Your task to perform on an android device: check android version Image 0: 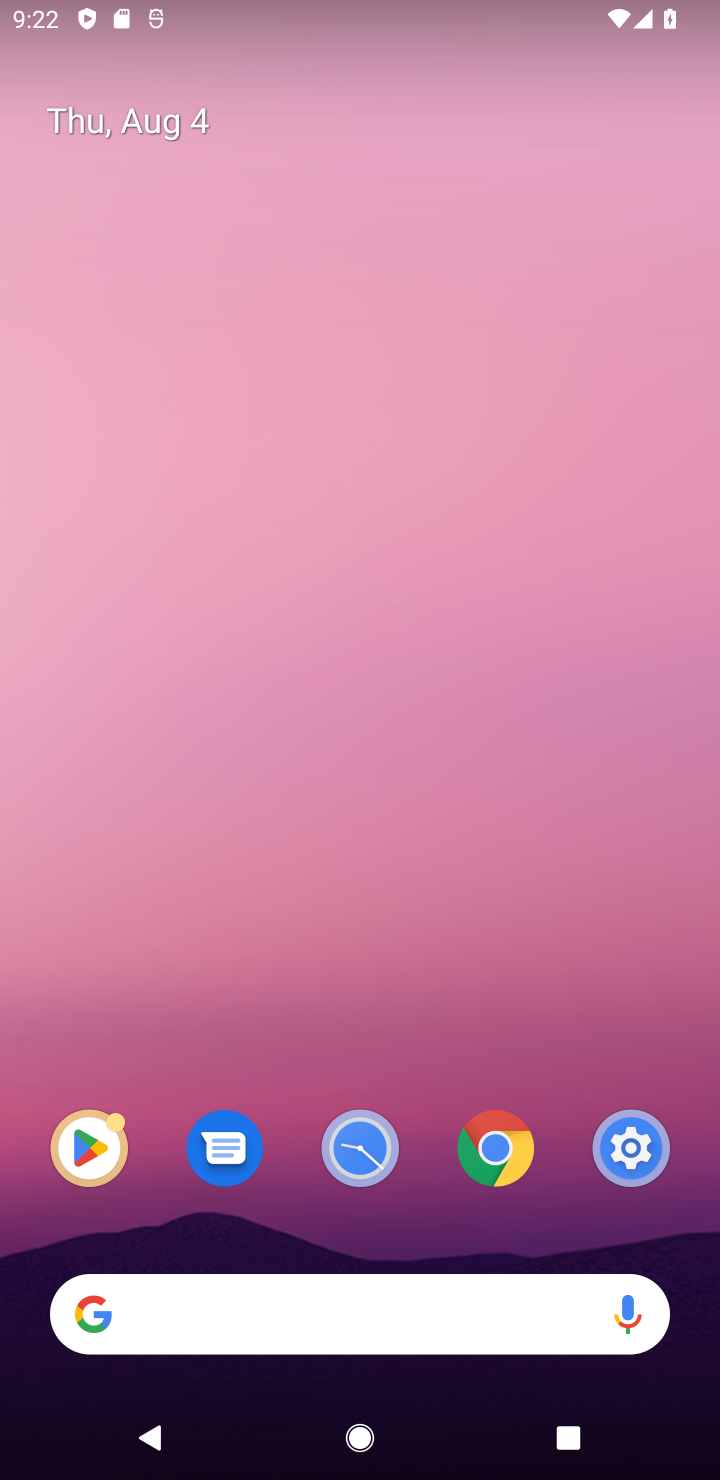
Step 0: drag from (276, 1030) to (355, 0)
Your task to perform on an android device: check android version Image 1: 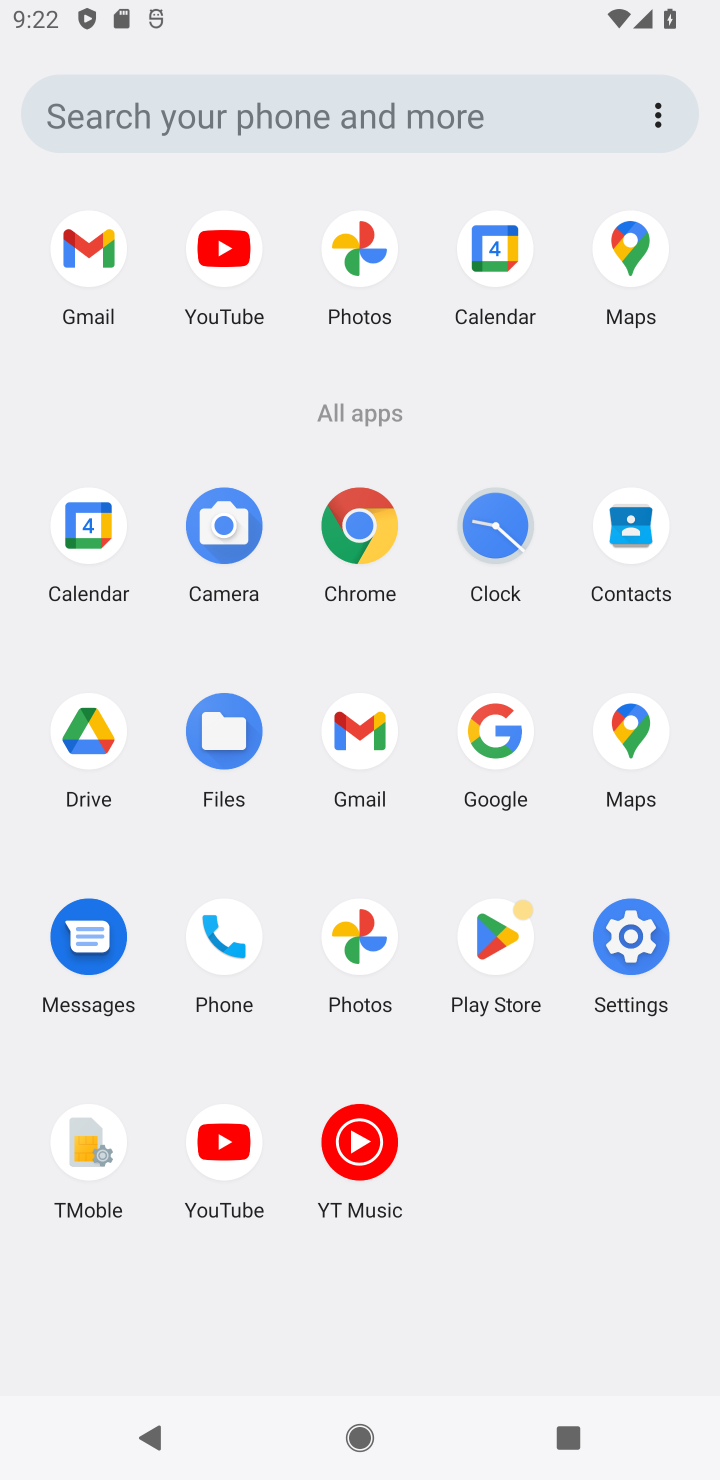
Step 1: press home button
Your task to perform on an android device: check android version Image 2: 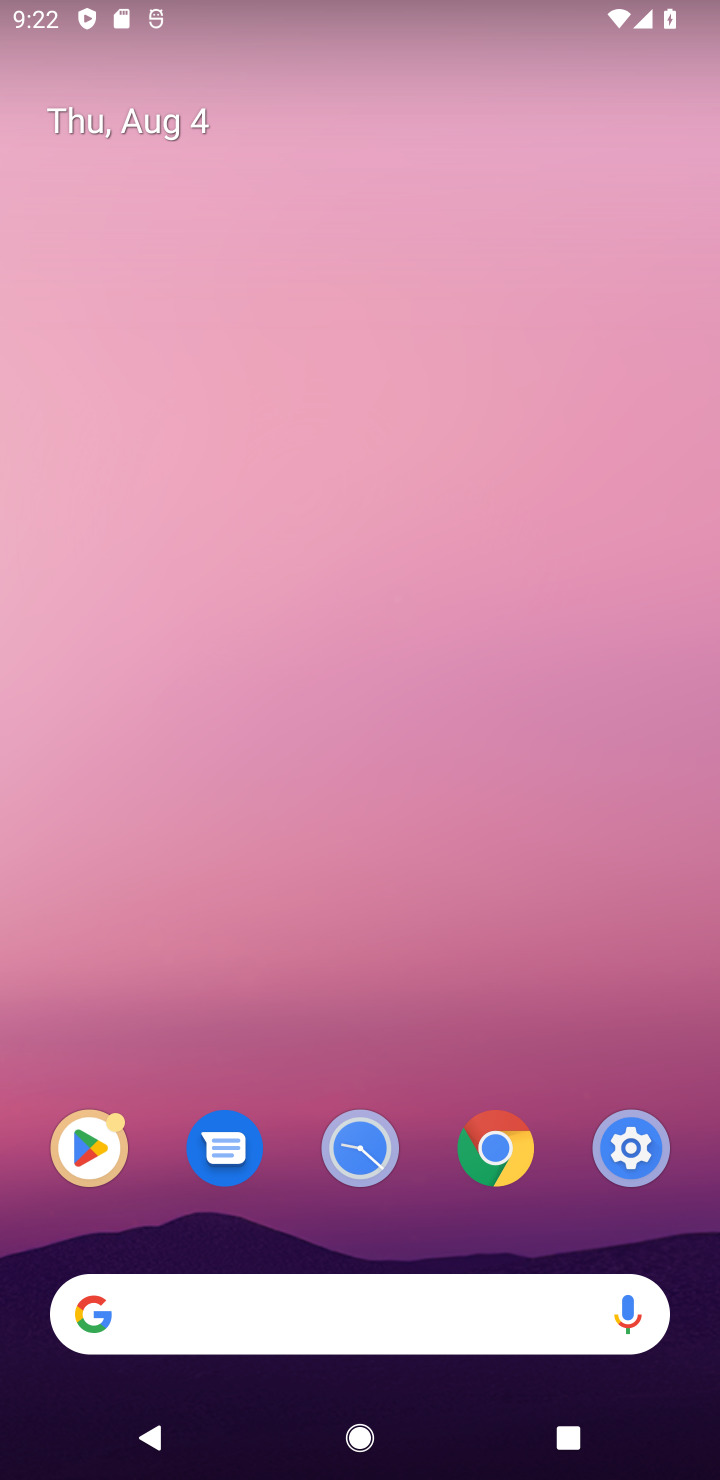
Step 2: click (89, 1321)
Your task to perform on an android device: check android version Image 3: 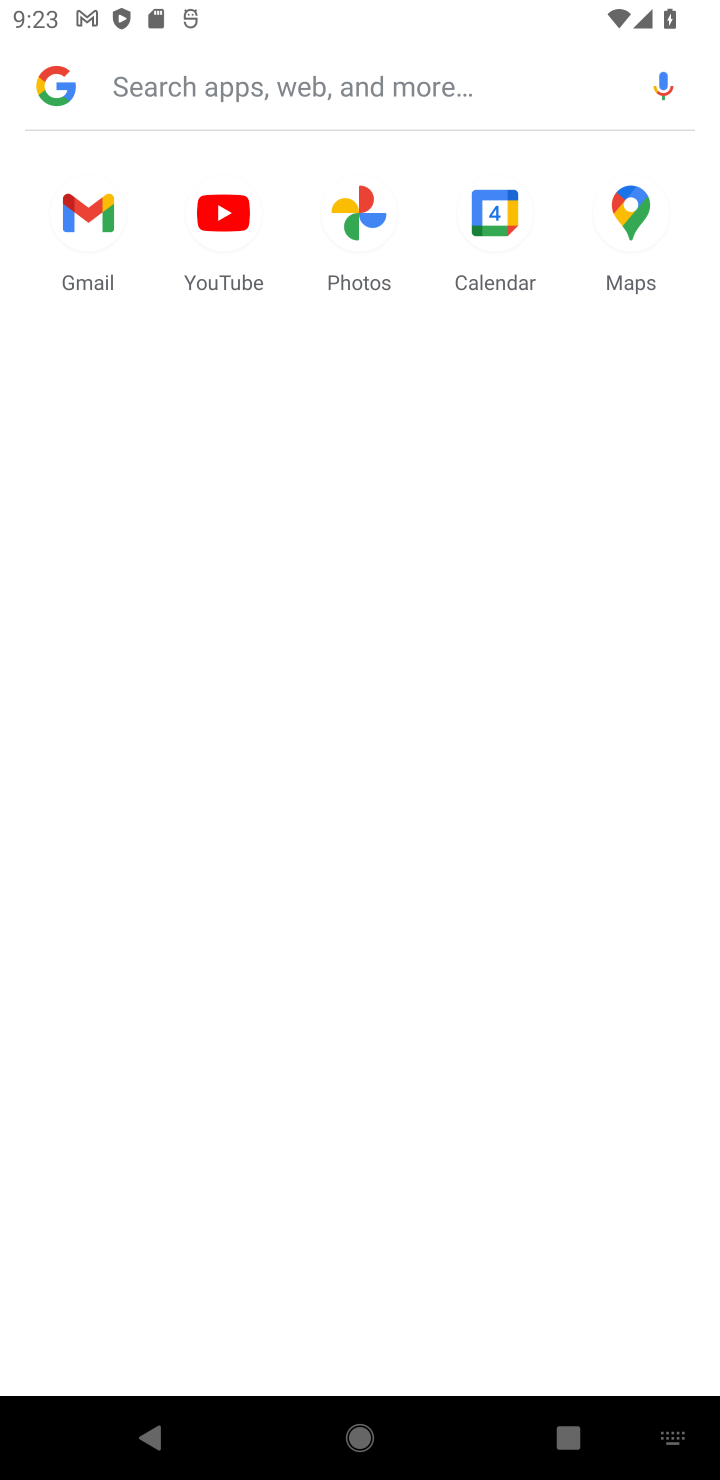
Step 3: click (62, 66)
Your task to perform on an android device: check android version Image 4: 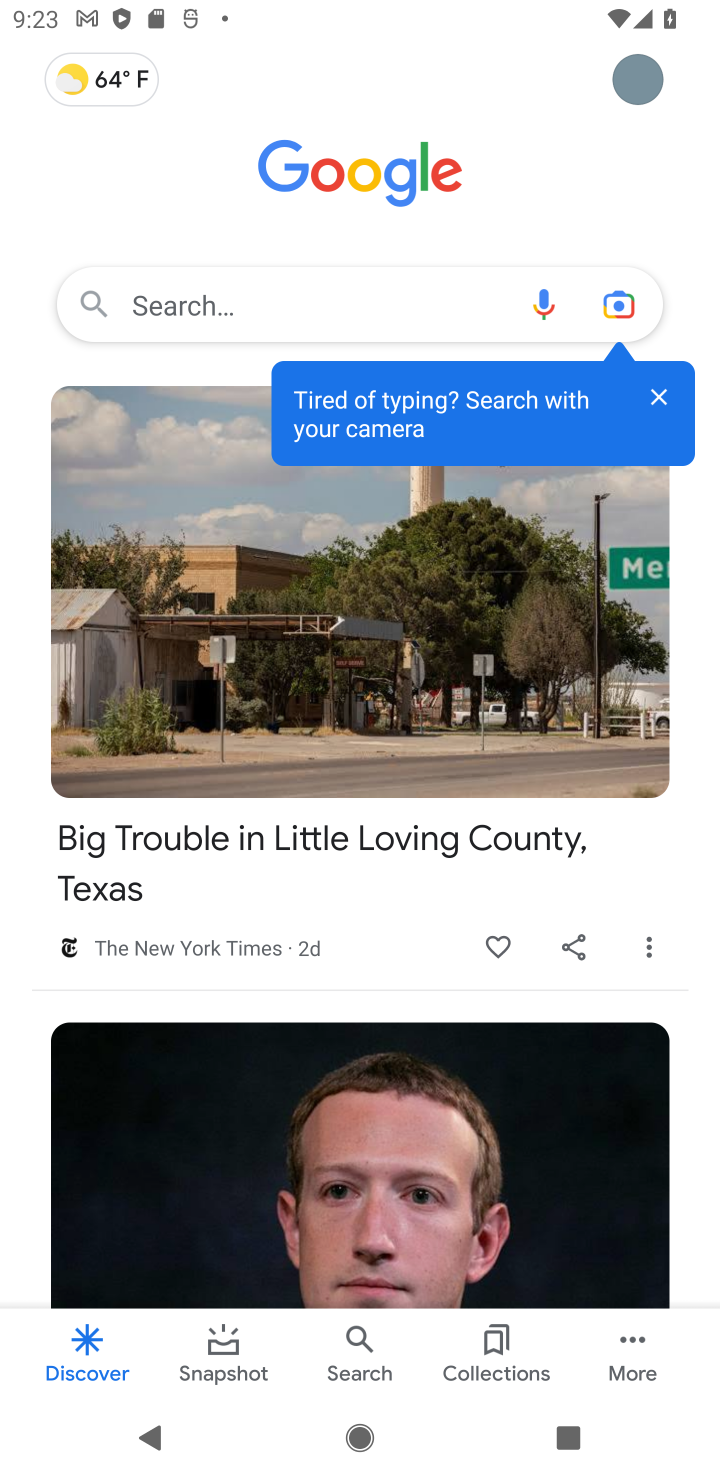
Step 4: click (631, 1345)
Your task to perform on an android device: check android version Image 5: 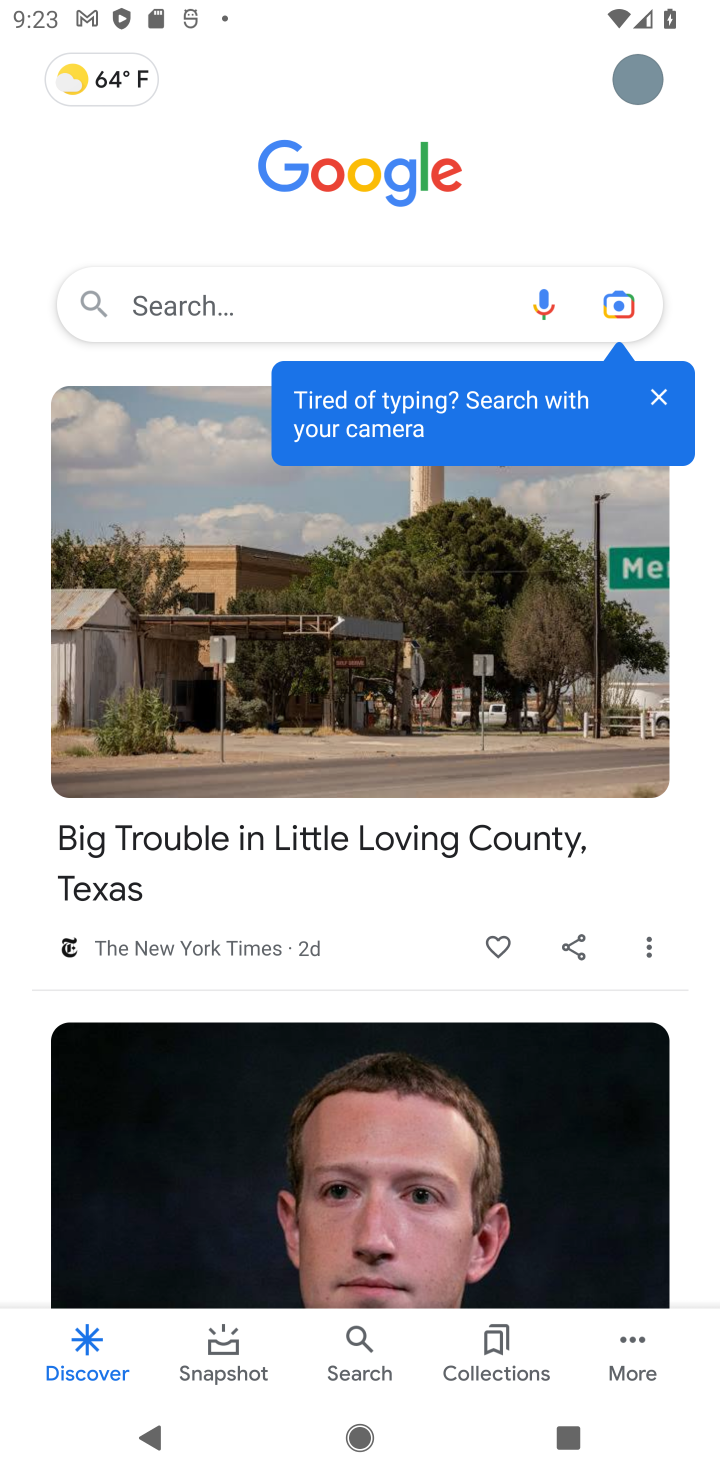
Step 5: click (637, 1353)
Your task to perform on an android device: check android version Image 6: 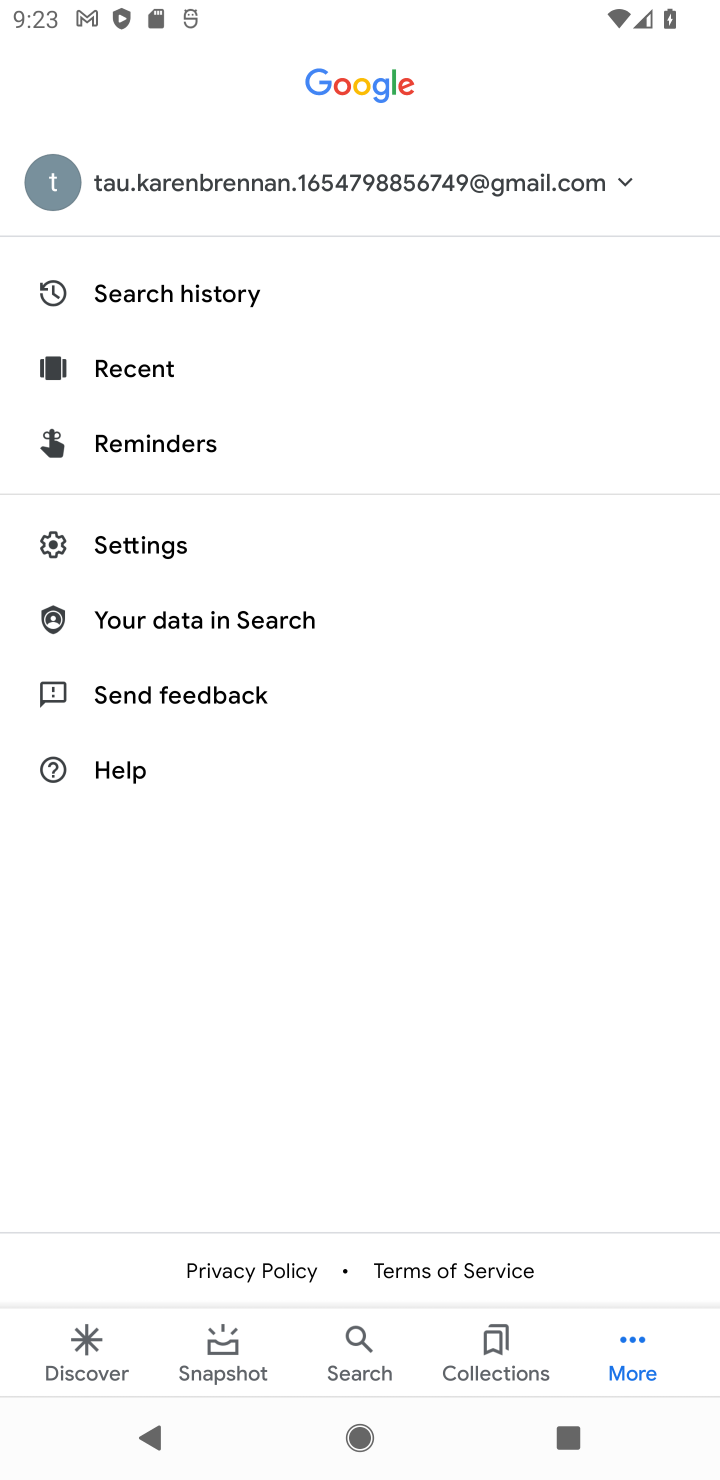
Step 6: click (151, 550)
Your task to perform on an android device: check android version Image 7: 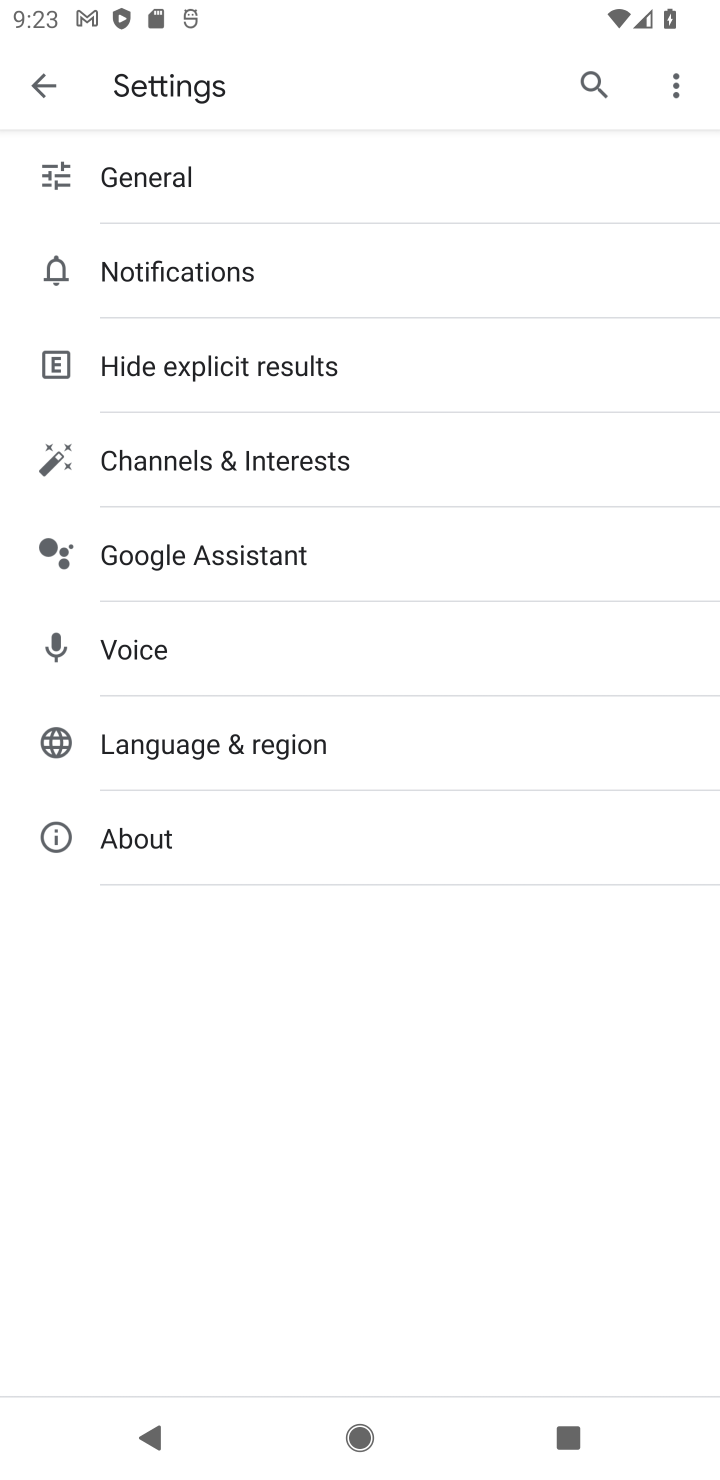
Step 7: click (182, 857)
Your task to perform on an android device: check android version Image 8: 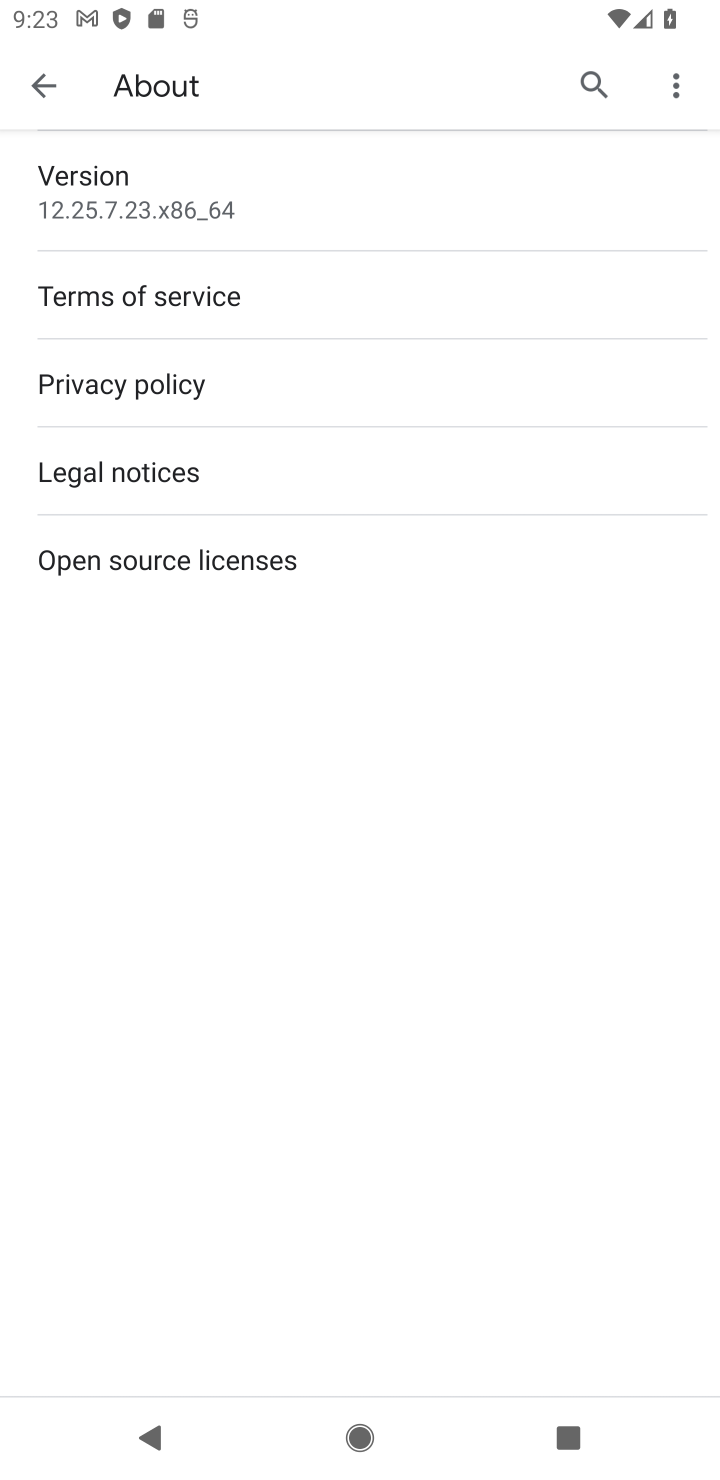
Step 8: task complete